Your task to perform on an android device: delete a single message in the gmail app Image 0: 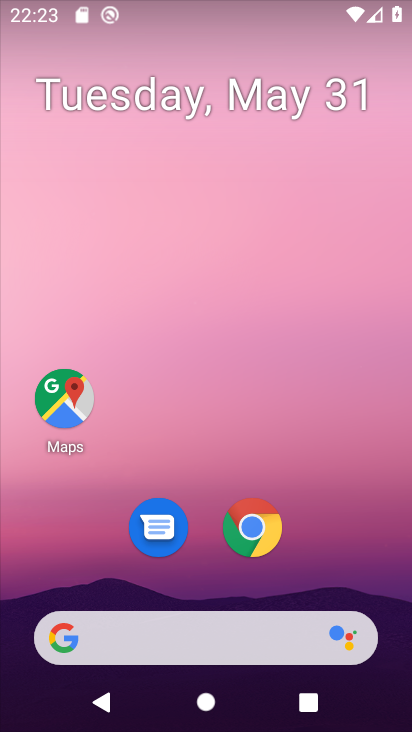
Step 0: drag from (325, 546) to (114, 95)
Your task to perform on an android device: delete a single message in the gmail app Image 1: 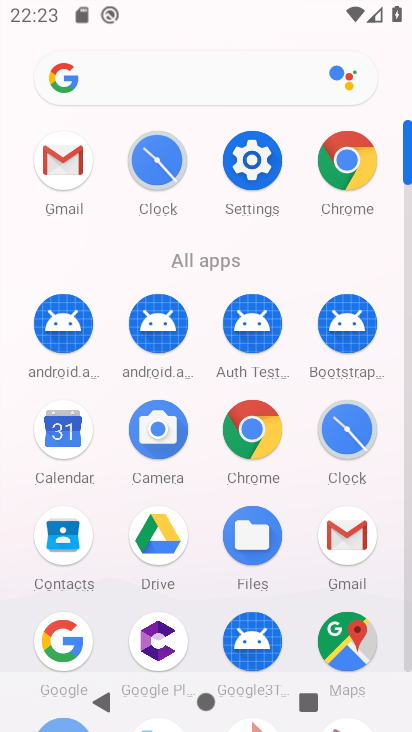
Step 1: click (60, 164)
Your task to perform on an android device: delete a single message in the gmail app Image 2: 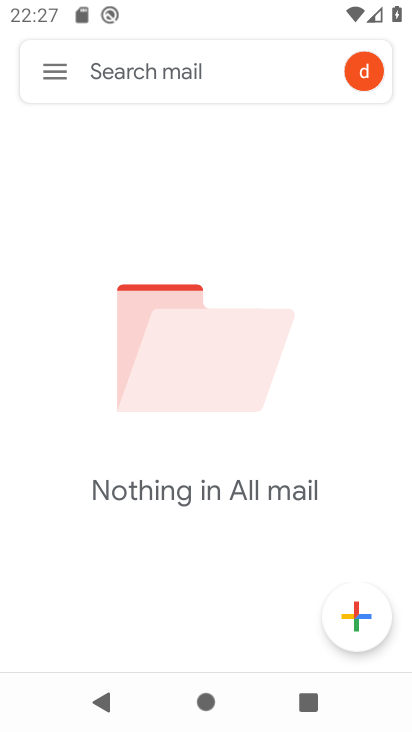
Step 2: task complete